Your task to perform on an android device: Search for Mexican restaurants on Maps Image 0: 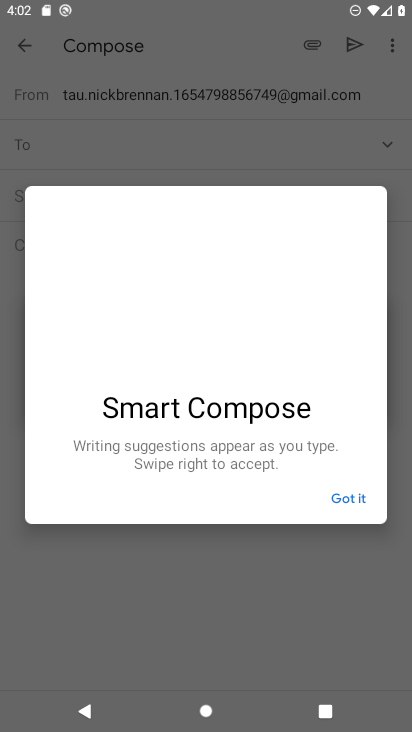
Step 0: press home button
Your task to perform on an android device: Search for Mexican restaurants on Maps Image 1: 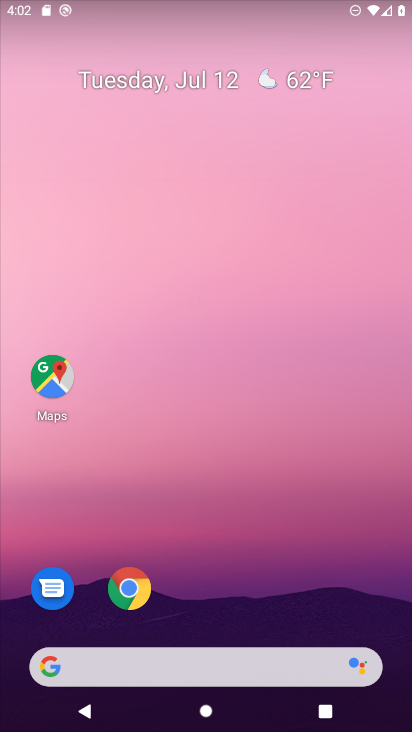
Step 1: click (58, 392)
Your task to perform on an android device: Search for Mexican restaurants on Maps Image 2: 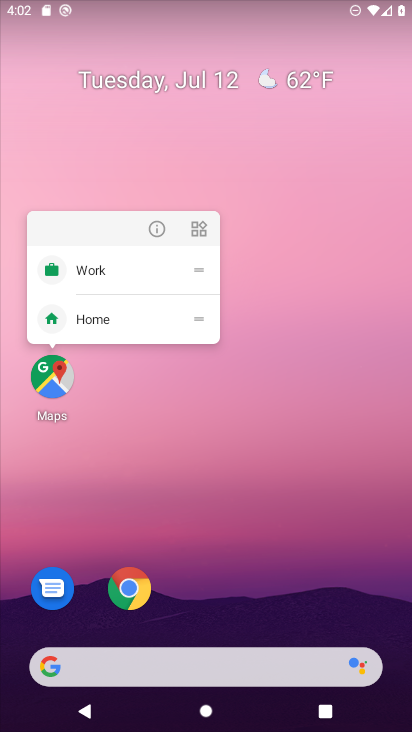
Step 2: click (55, 381)
Your task to perform on an android device: Search for Mexican restaurants on Maps Image 3: 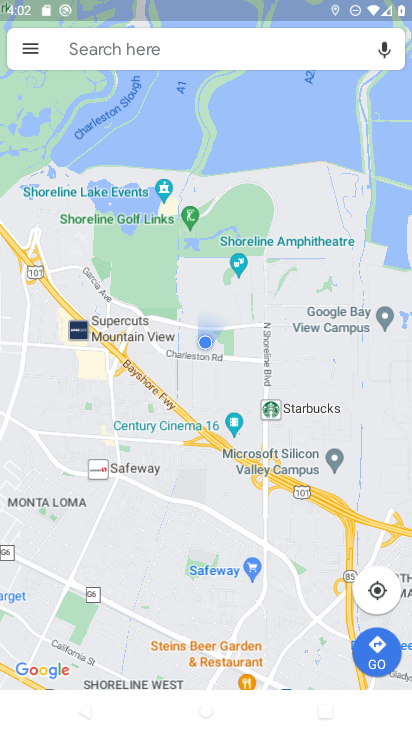
Step 3: click (150, 40)
Your task to perform on an android device: Search for Mexican restaurants on Maps Image 4: 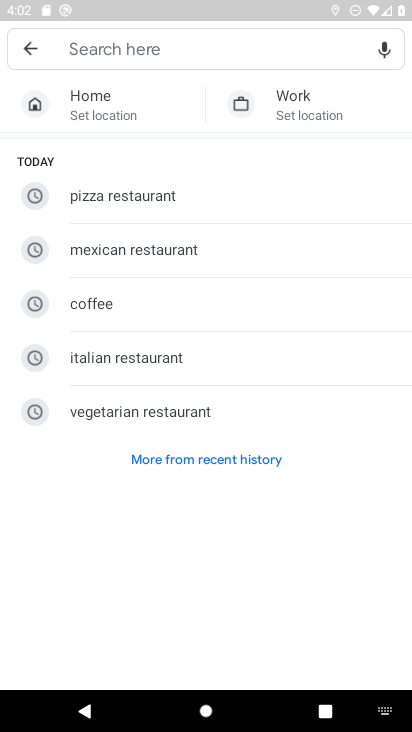
Step 4: type "mexican restaurants"
Your task to perform on an android device: Search for Mexican restaurants on Maps Image 5: 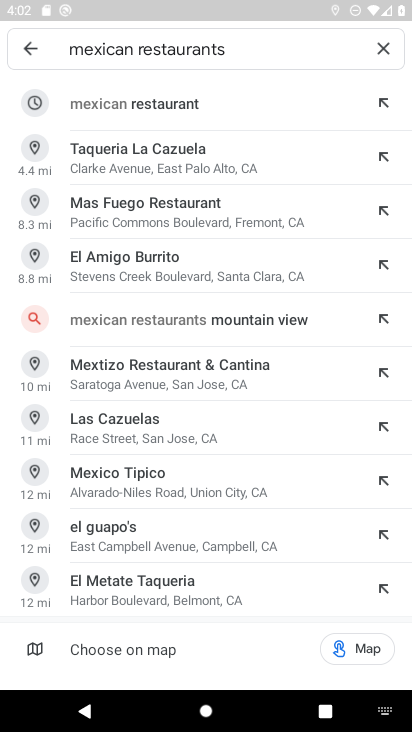
Step 5: click (144, 105)
Your task to perform on an android device: Search for Mexican restaurants on Maps Image 6: 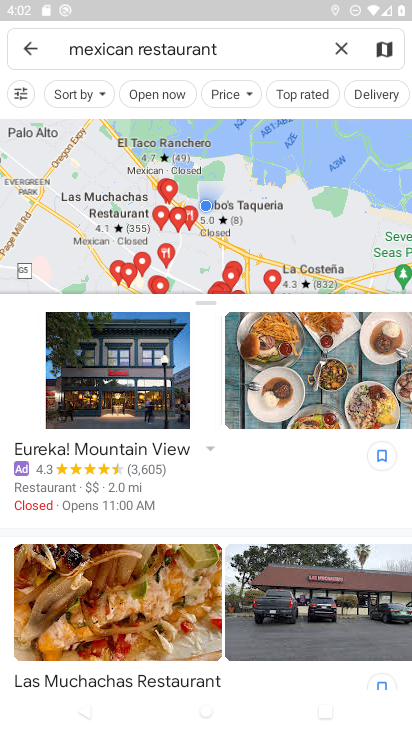
Step 6: task complete